Your task to perform on an android device: open app "Venmo" (install if not already installed) Image 0: 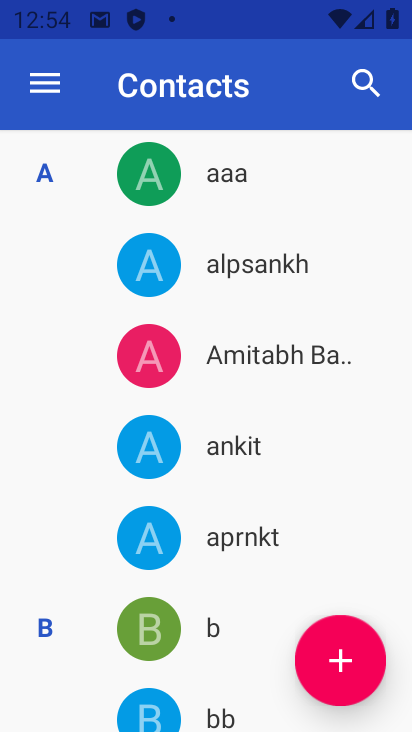
Step 0: press home button
Your task to perform on an android device: open app "Venmo" (install if not already installed) Image 1: 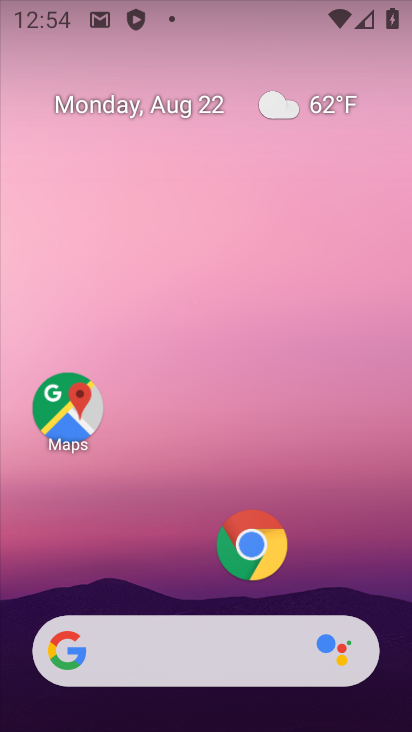
Step 1: drag from (174, 479) to (199, 0)
Your task to perform on an android device: open app "Venmo" (install if not already installed) Image 2: 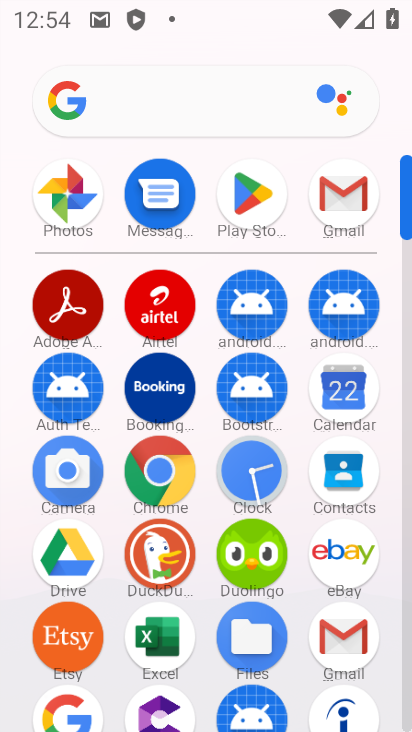
Step 2: click (261, 199)
Your task to perform on an android device: open app "Venmo" (install if not already installed) Image 3: 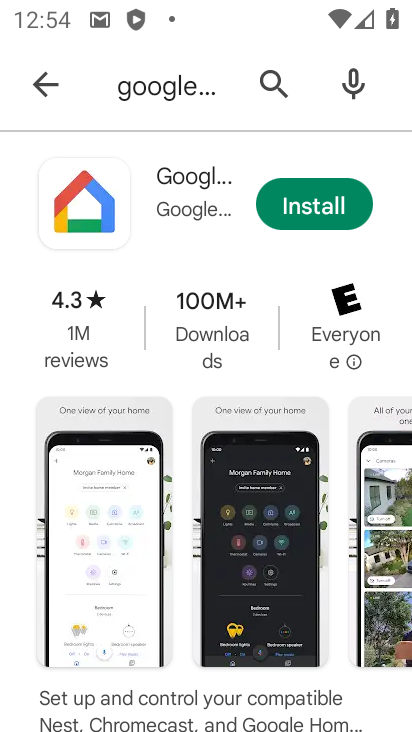
Step 3: click (260, 87)
Your task to perform on an android device: open app "Venmo" (install if not already installed) Image 4: 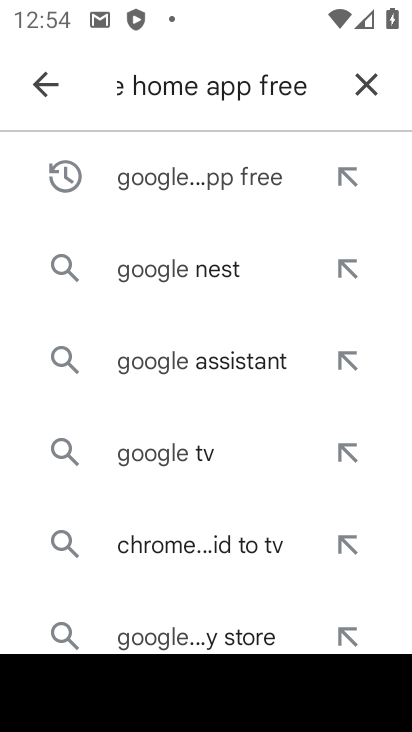
Step 4: click (357, 93)
Your task to perform on an android device: open app "Venmo" (install if not already installed) Image 5: 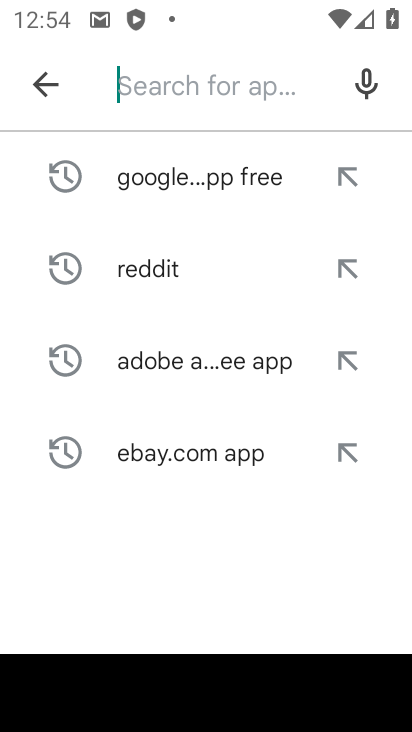
Step 5: click (163, 79)
Your task to perform on an android device: open app "Venmo" (install if not already installed) Image 6: 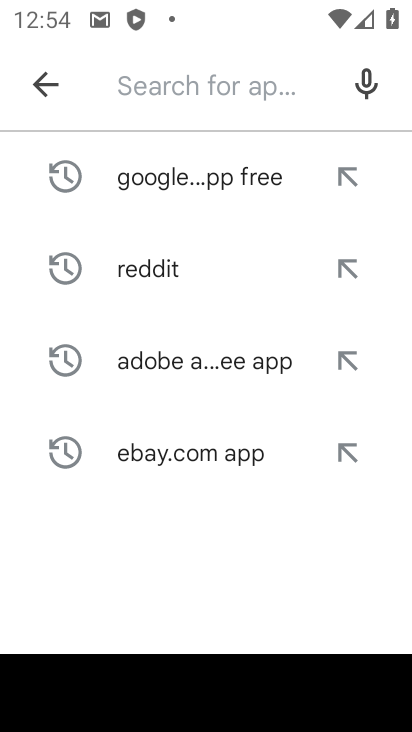
Step 6: type "Venmo"
Your task to perform on an android device: open app "Venmo" (install if not already installed) Image 7: 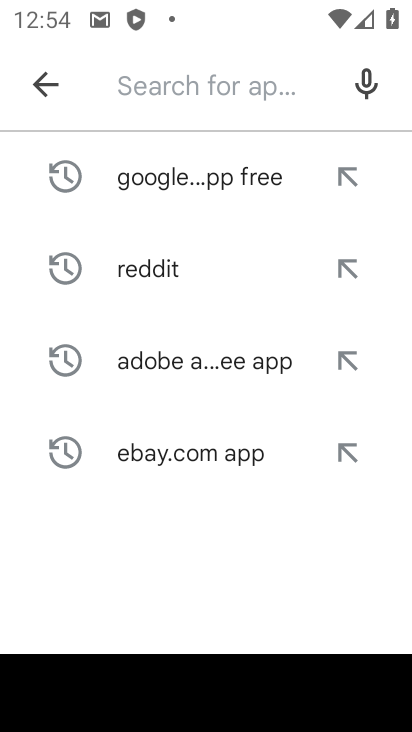
Step 7: click (233, 551)
Your task to perform on an android device: open app "Venmo" (install if not already installed) Image 8: 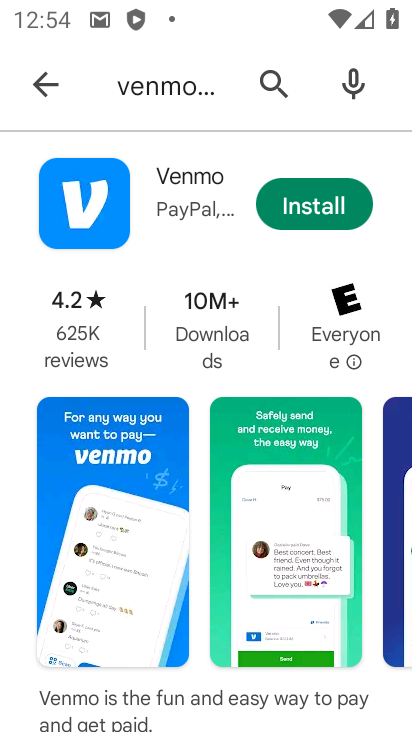
Step 8: click (305, 205)
Your task to perform on an android device: open app "Venmo" (install if not already installed) Image 9: 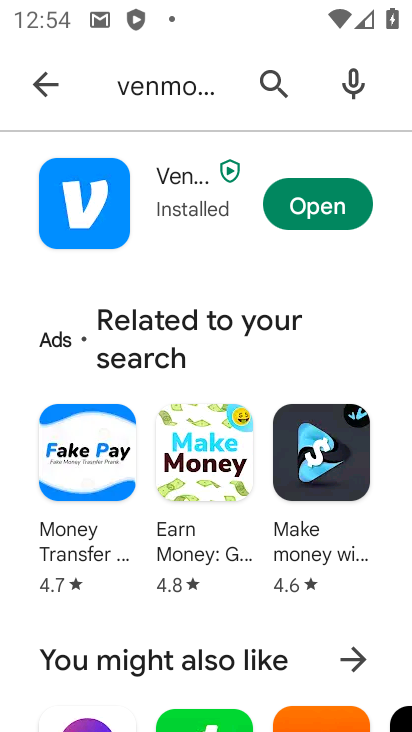
Step 9: click (320, 215)
Your task to perform on an android device: open app "Venmo" (install if not already installed) Image 10: 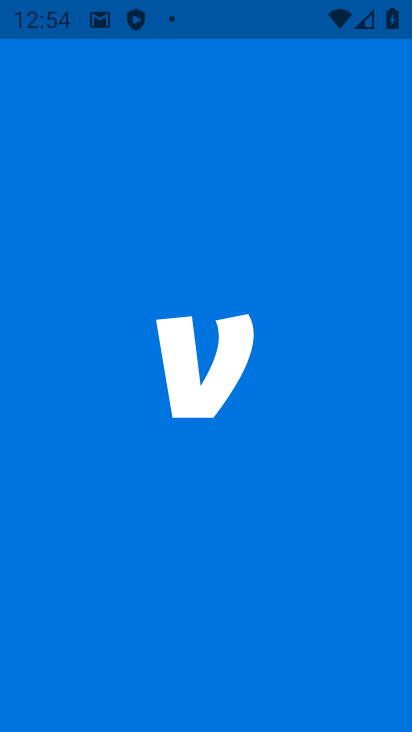
Step 10: task complete